Your task to perform on an android device: turn on the 24-hour format for clock Image 0: 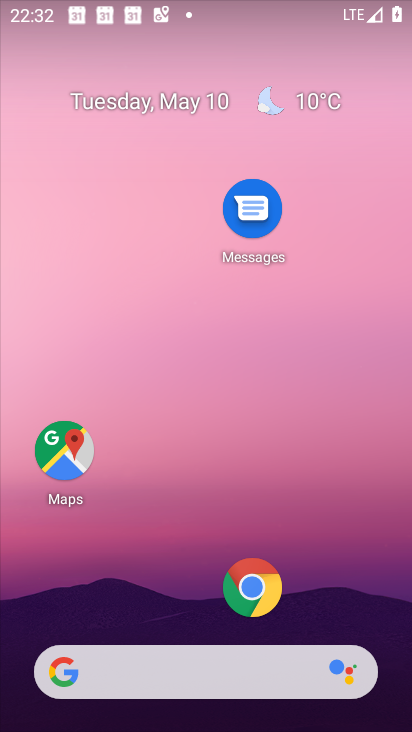
Step 0: drag from (163, 618) to (235, 91)
Your task to perform on an android device: turn on the 24-hour format for clock Image 1: 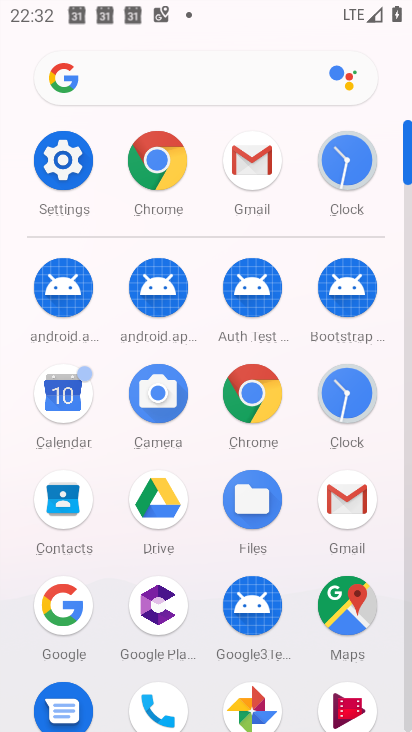
Step 1: click (81, 175)
Your task to perform on an android device: turn on the 24-hour format for clock Image 2: 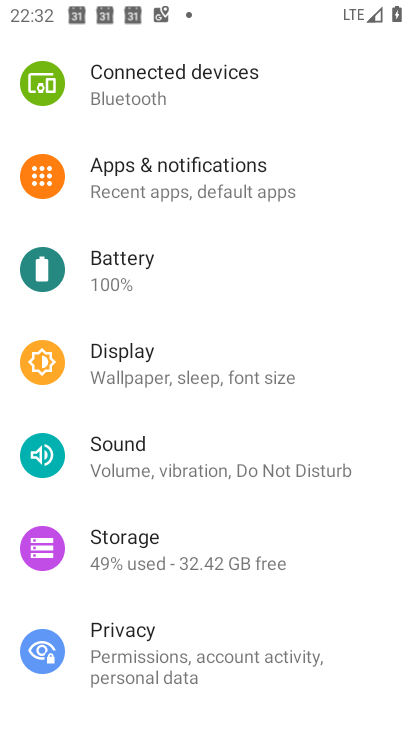
Step 2: drag from (164, 568) to (236, 228)
Your task to perform on an android device: turn on the 24-hour format for clock Image 3: 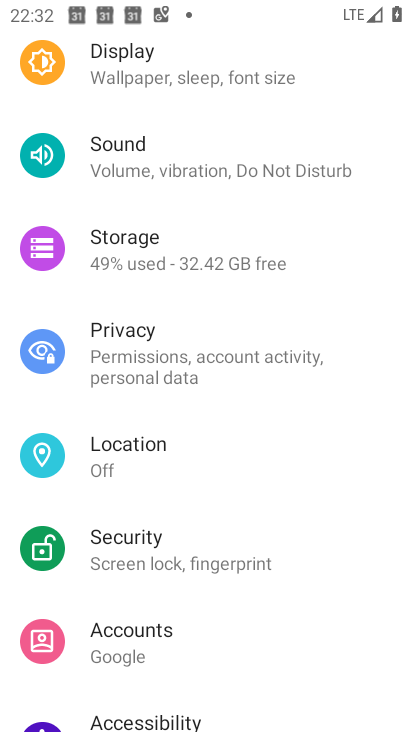
Step 3: drag from (143, 628) to (175, 424)
Your task to perform on an android device: turn on the 24-hour format for clock Image 4: 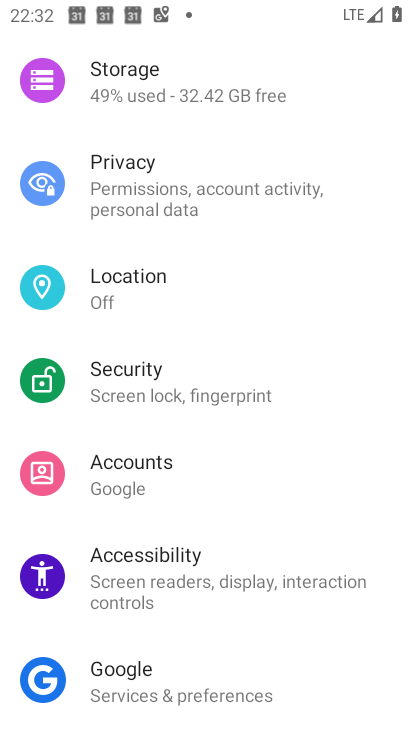
Step 4: drag from (176, 632) to (228, 363)
Your task to perform on an android device: turn on the 24-hour format for clock Image 5: 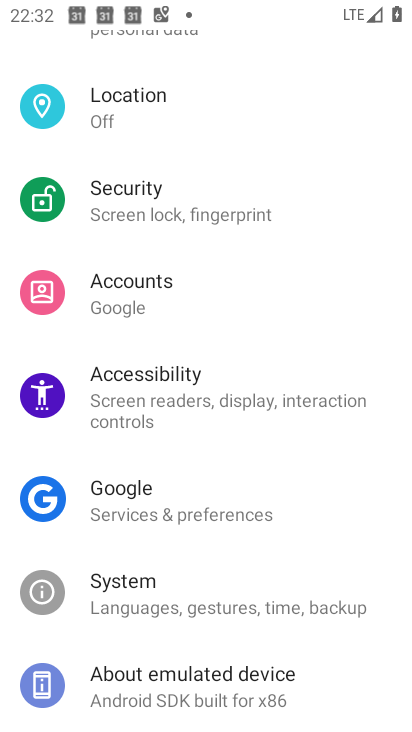
Step 5: click (159, 605)
Your task to perform on an android device: turn on the 24-hour format for clock Image 6: 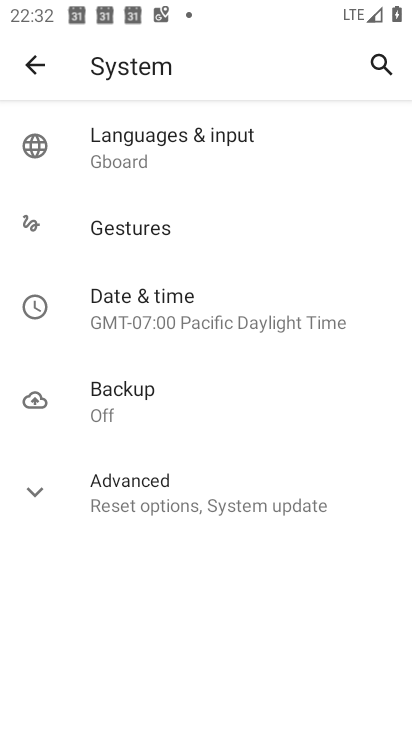
Step 6: click (178, 303)
Your task to perform on an android device: turn on the 24-hour format for clock Image 7: 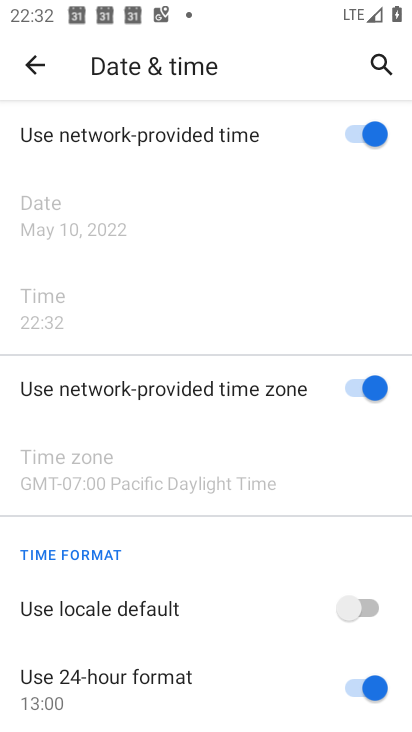
Step 7: task complete